Your task to perform on an android device: Open Maps and search for coffee Image 0: 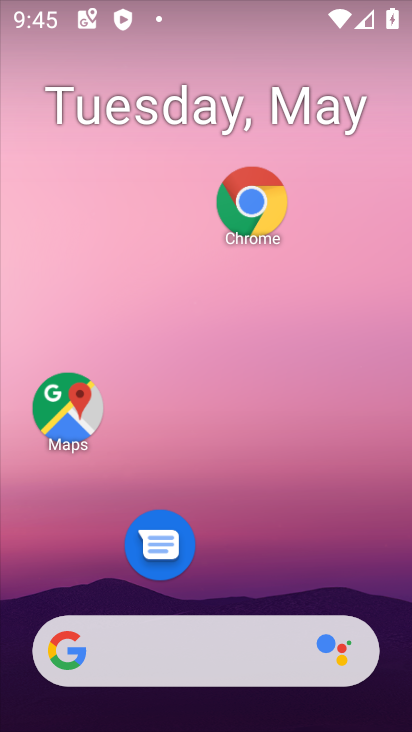
Step 0: click (63, 423)
Your task to perform on an android device: Open Maps and search for coffee Image 1: 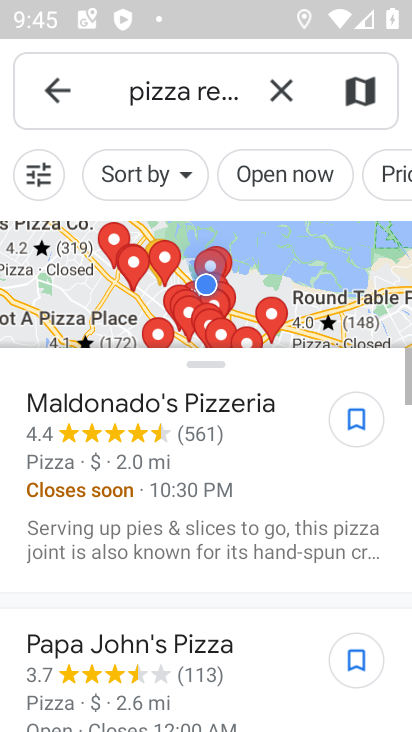
Step 1: click (279, 76)
Your task to perform on an android device: Open Maps and search for coffee Image 2: 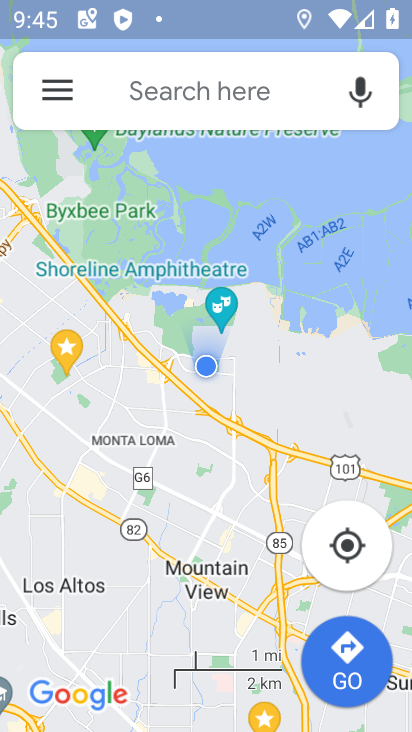
Step 2: click (148, 97)
Your task to perform on an android device: Open Maps and search for coffee Image 3: 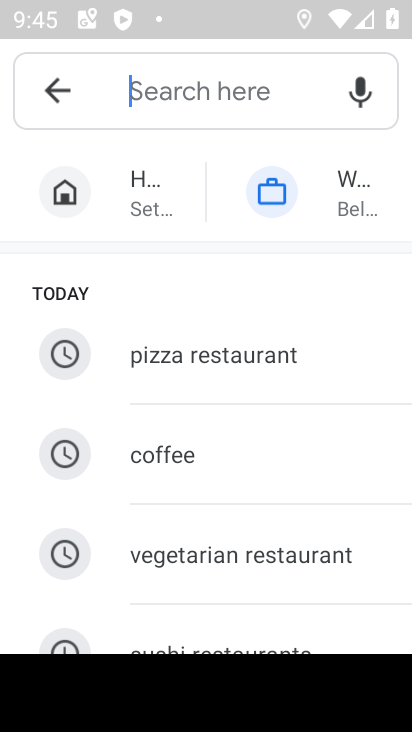
Step 3: click (172, 443)
Your task to perform on an android device: Open Maps and search for coffee Image 4: 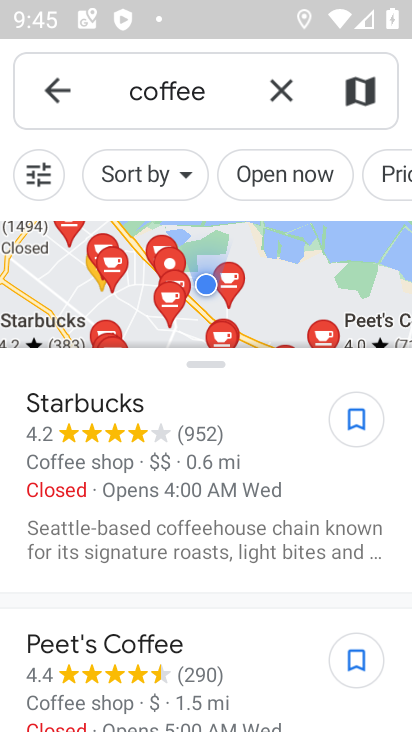
Step 4: task complete